Your task to perform on an android device: What's the time in San Francisco? Image 0: 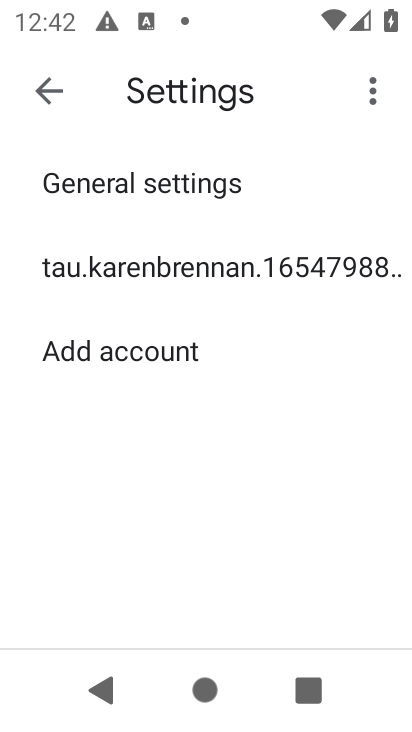
Step 0: press home button
Your task to perform on an android device: What's the time in San Francisco? Image 1: 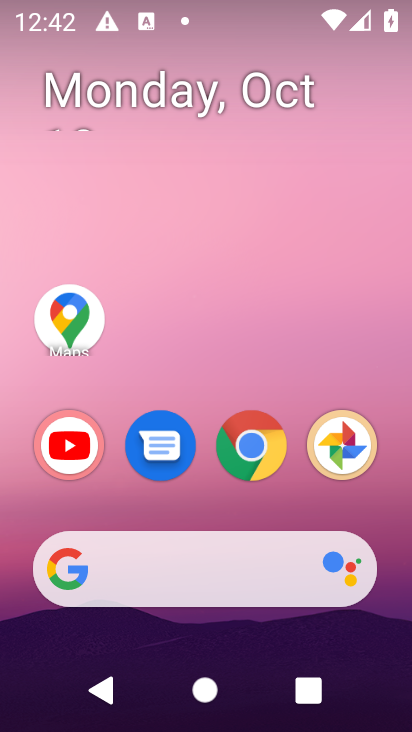
Step 1: click (62, 569)
Your task to perform on an android device: What's the time in San Francisco? Image 2: 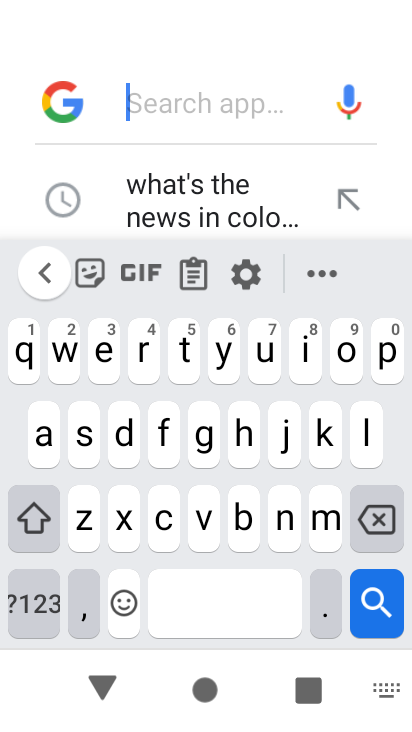
Step 2: click (191, 100)
Your task to perform on an android device: What's the time in San Francisco? Image 3: 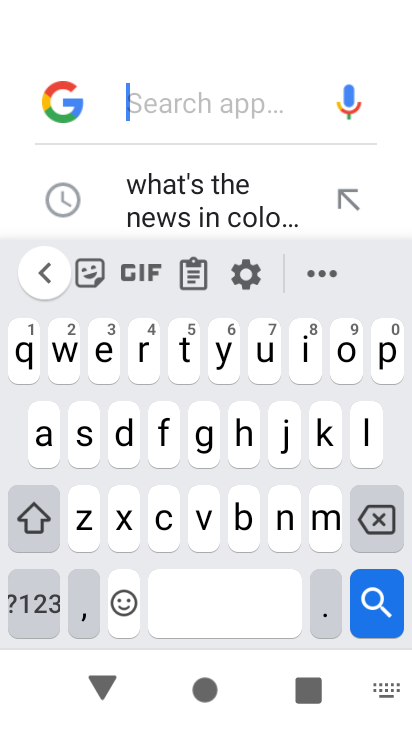
Step 3: type "whats the time in san francisco?"
Your task to perform on an android device: What's the time in San Francisco? Image 4: 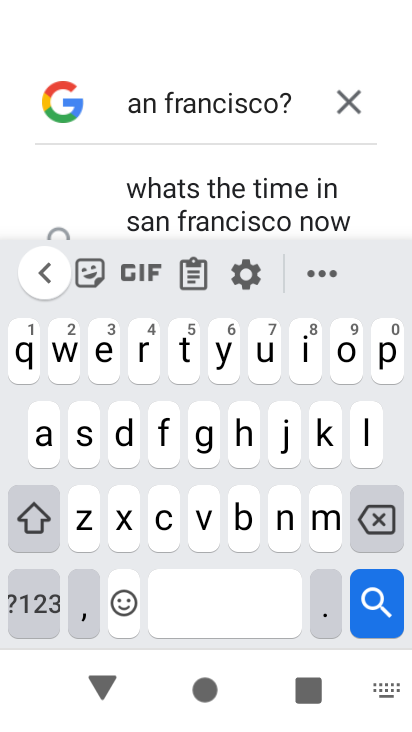
Step 4: click (317, 215)
Your task to perform on an android device: What's the time in San Francisco? Image 5: 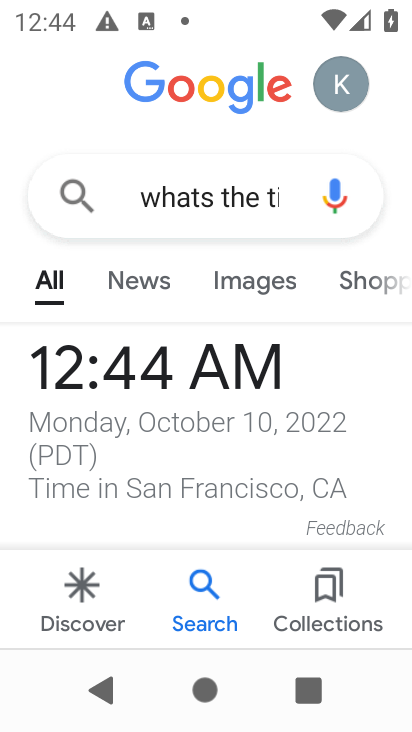
Step 5: task complete